Your task to perform on an android device: Open calendar and show me the second week of next month Image 0: 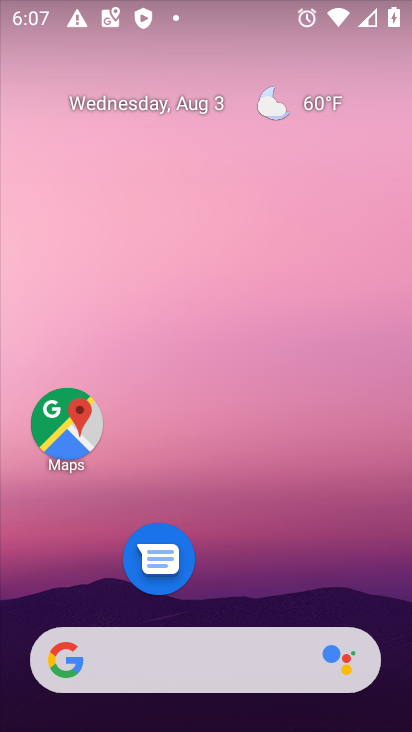
Step 0: drag from (202, 610) to (258, 143)
Your task to perform on an android device: Open calendar and show me the second week of next month Image 1: 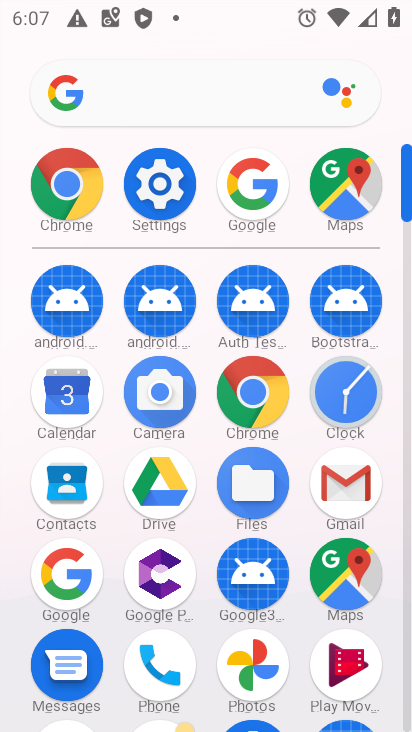
Step 1: click (51, 400)
Your task to perform on an android device: Open calendar and show me the second week of next month Image 2: 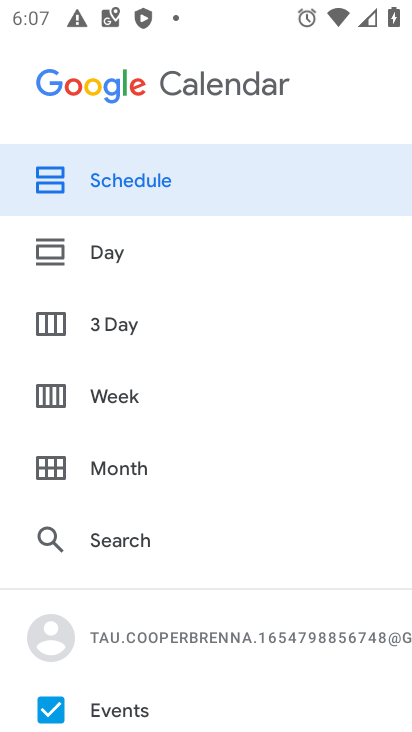
Step 2: click (147, 194)
Your task to perform on an android device: Open calendar and show me the second week of next month Image 3: 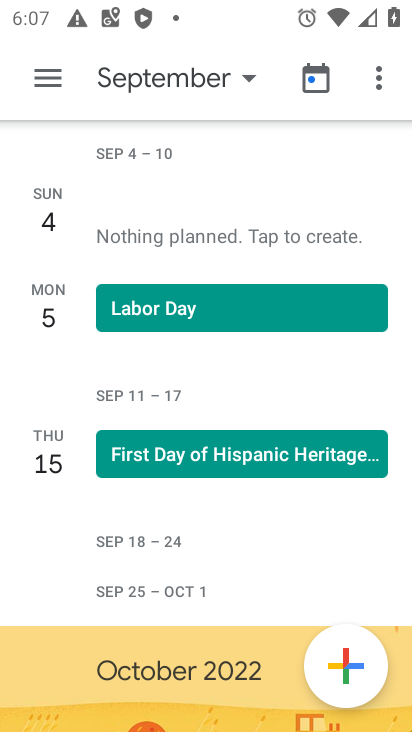
Step 3: click (155, 81)
Your task to perform on an android device: Open calendar and show me the second week of next month Image 4: 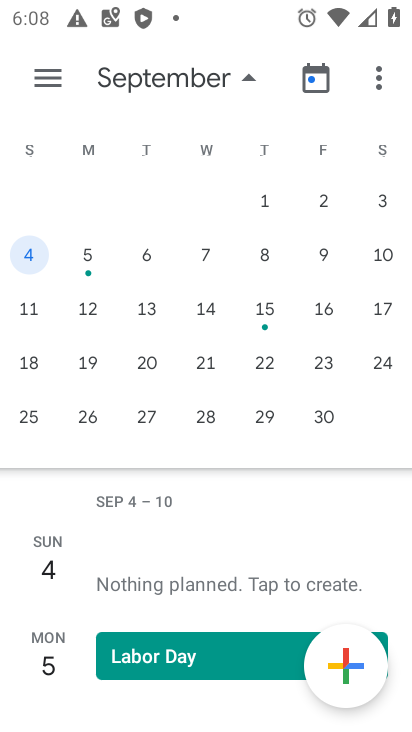
Step 4: click (28, 255)
Your task to perform on an android device: Open calendar and show me the second week of next month Image 5: 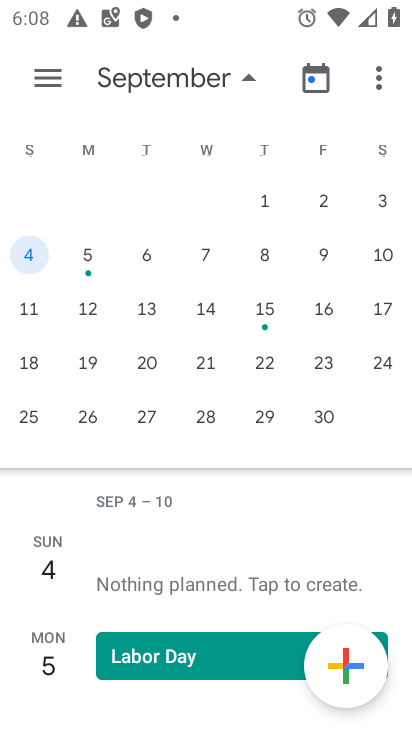
Step 5: click (36, 307)
Your task to perform on an android device: Open calendar and show me the second week of next month Image 6: 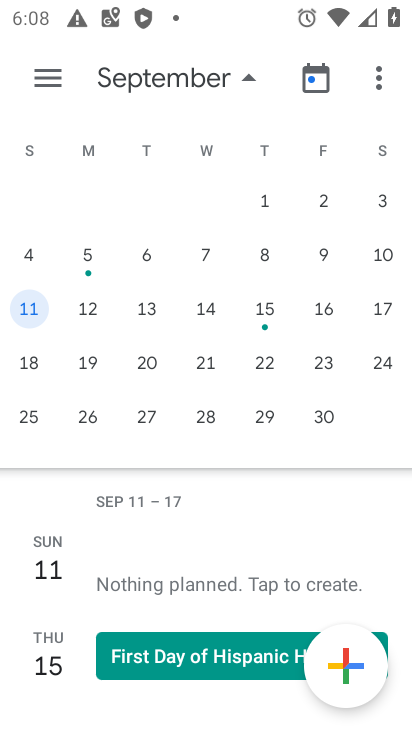
Step 6: click (40, 252)
Your task to perform on an android device: Open calendar and show me the second week of next month Image 7: 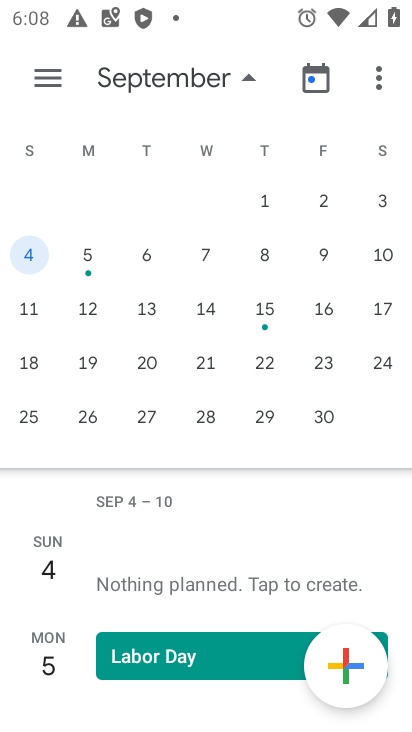
Step 7: task complete